Your task to perform on an android device: Toggle the flashlight Image 0: 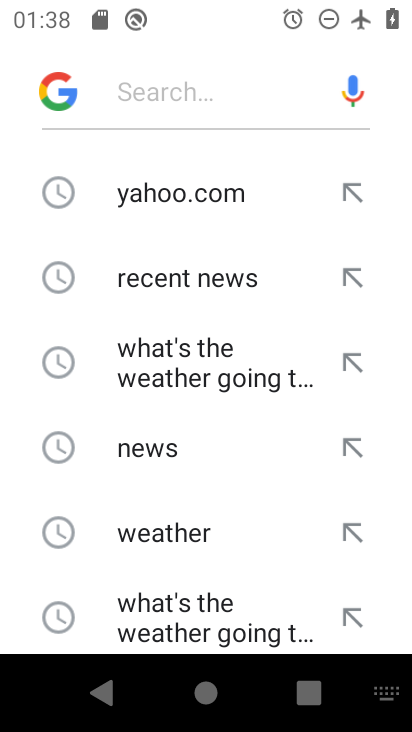
Step 0: press home button
Your task to perform on an android device: Toggle the flashlight Image 1: 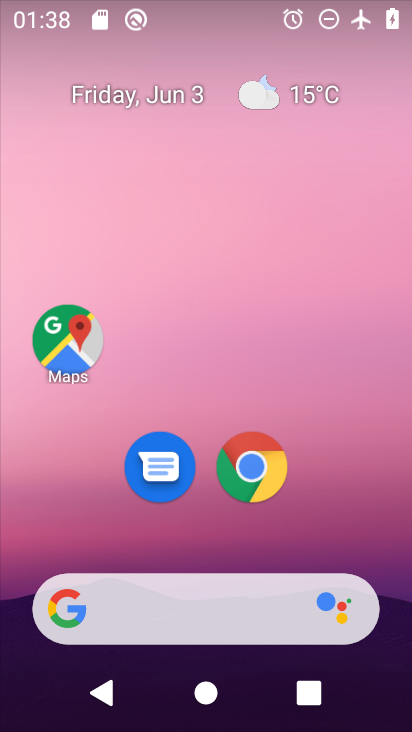
Step 1: drag from (230, 11) to (260, 514)
Your task to perform on an android device: Toggle the flashlight Image 2: 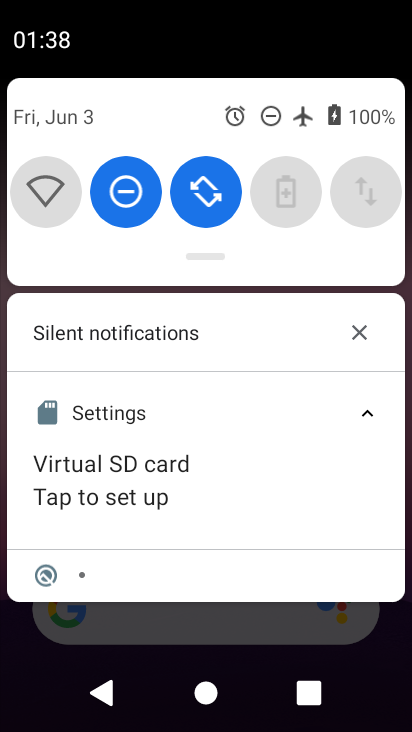
Step 2: drag from (204, 244) to (212, 539)
Your task to perform on an android device: Toggle the flashlight Image 3: 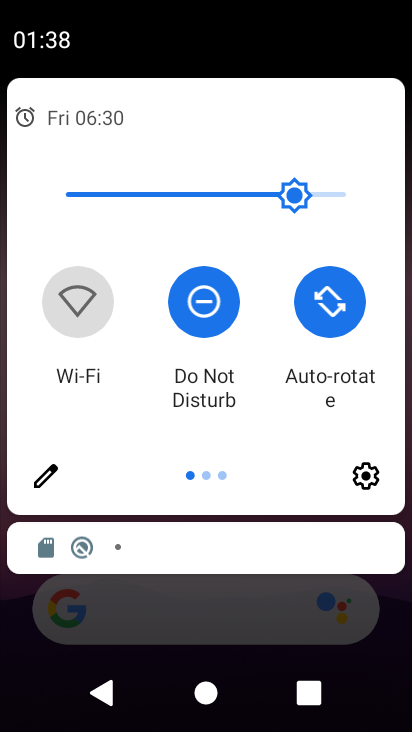
Step 3: click (46, 479)
Your task to perform on an android device: Toggle the flashlight Image 4: 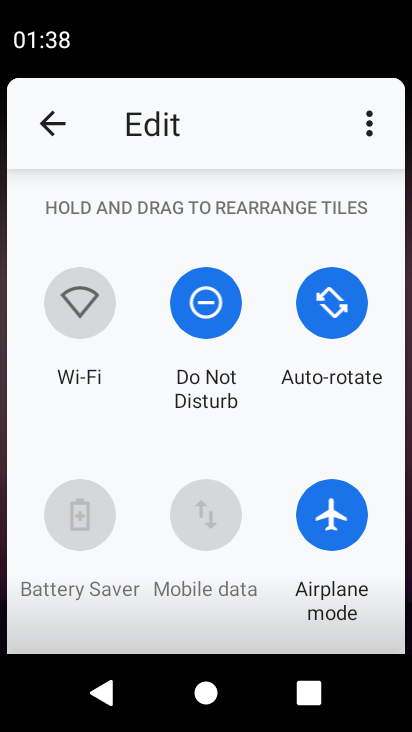
Step 4: task complete